Your task to perform on an android device: Go to network settings Image 0: 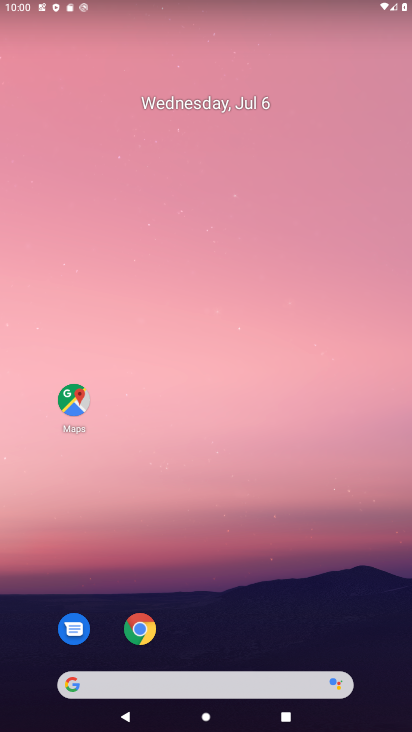
Step 0: drag from (205, 455) to (204, 163)
Your task to perform on an android device: Go to network settings Image 1: 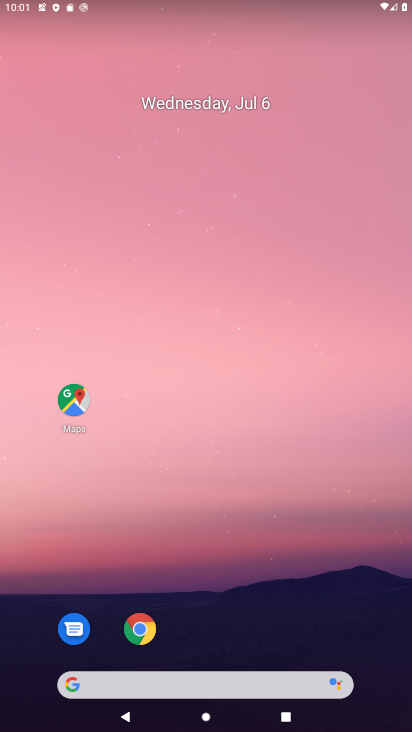
Step 1: drag from (237, 635) to (246, 109)
Your task to perform on an android device: Go to network settings Image 2: 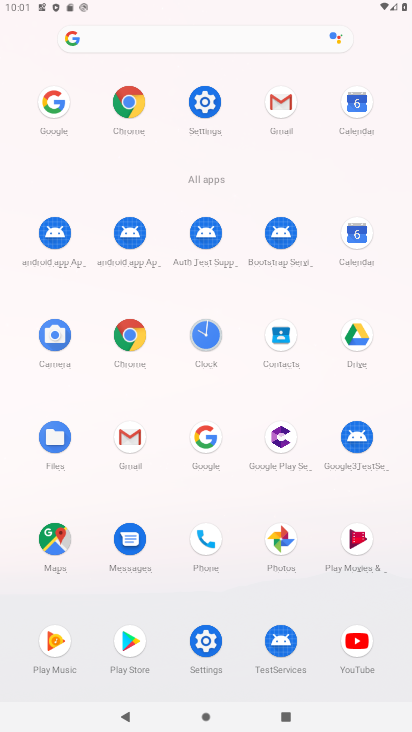
Step 2: click (204, 100)
Your task to perform on an android device: Go to network settings Image 3: 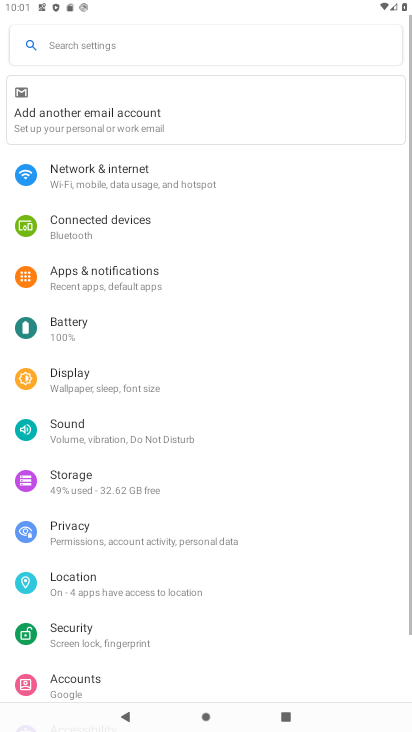
Step 3: click (115, 168)
Your task to perform on an android device: Go to network settings Image 4: 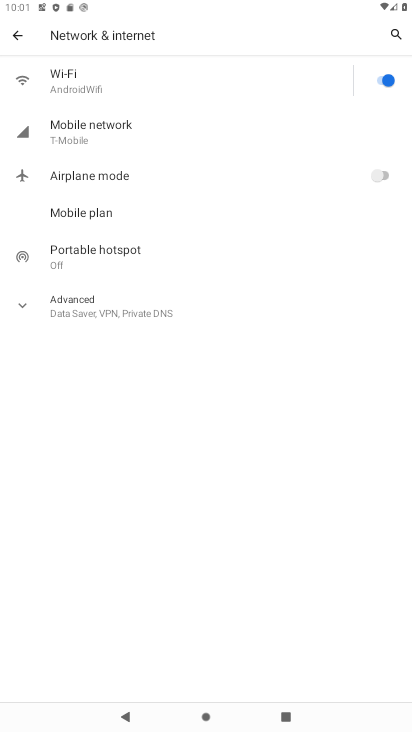
Step 4: click (113, 133)
Your task to perform on an android device: Go to network settings Image 5: 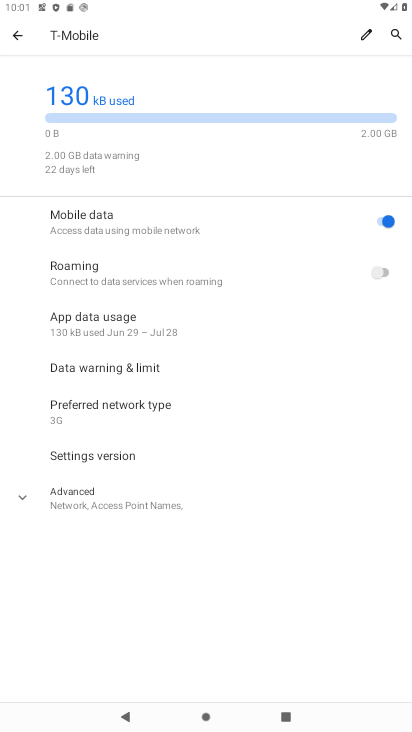
Step 5: click (92, 500)
Your task to perform on an android device: Go to network settings Image 6: 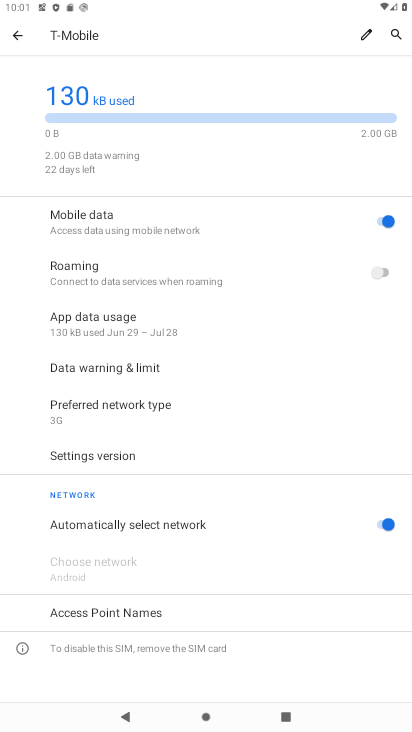
Step 6: task complete